Your task to perform on an android device: Go to Google Image 0: 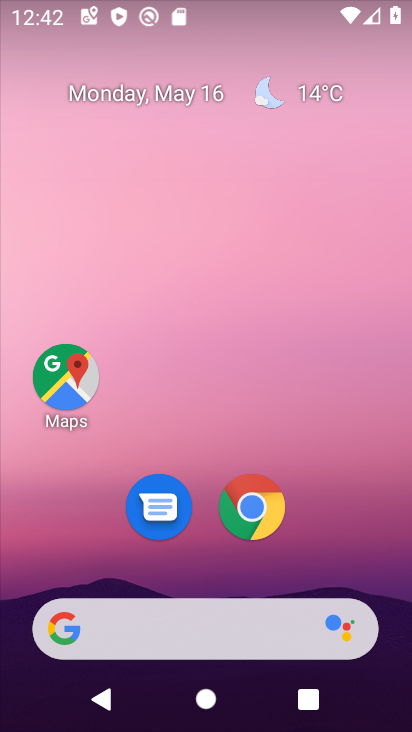
Step 0: drag from (266, 575) to (222, 227)
Your task to perform on an android device: Go to Google Image 1: 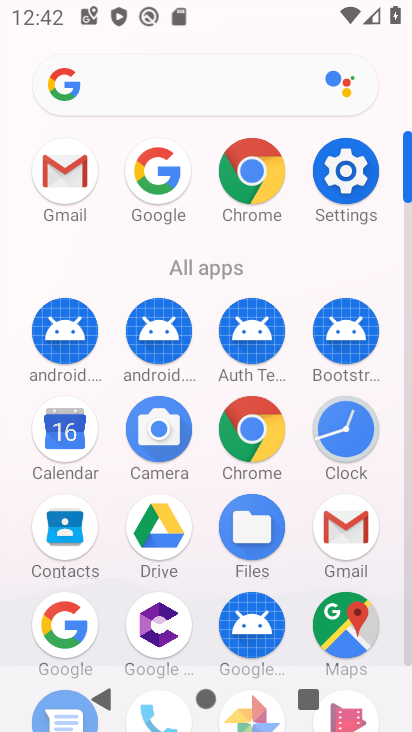
Step 1: click (82, 622)
Your task to perform on an android device: Go to Google Image 2: 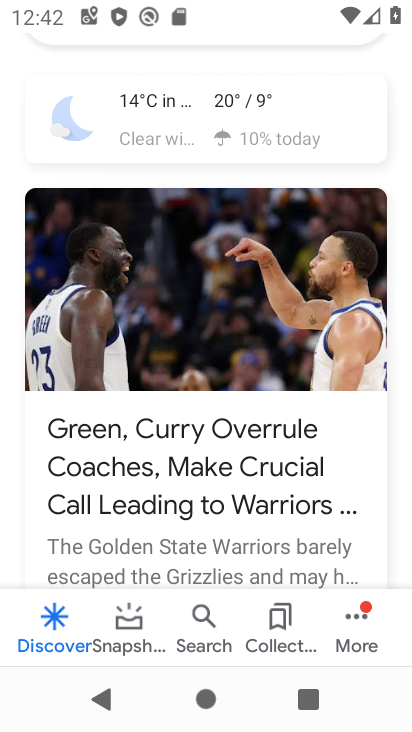
Step 2: task complete